Your task to perform on an android device: Open settings on Google Maps Image 0: 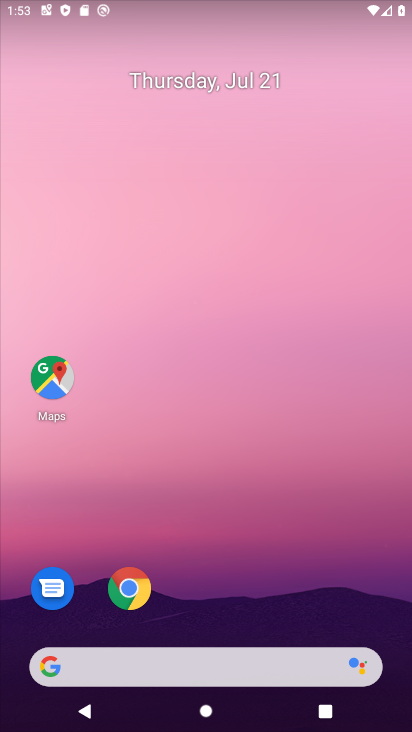
Step 0: drag from (215, 633) to (193, 120)
Your task to perform on an android device: Open settings on Google Maps Image 1: 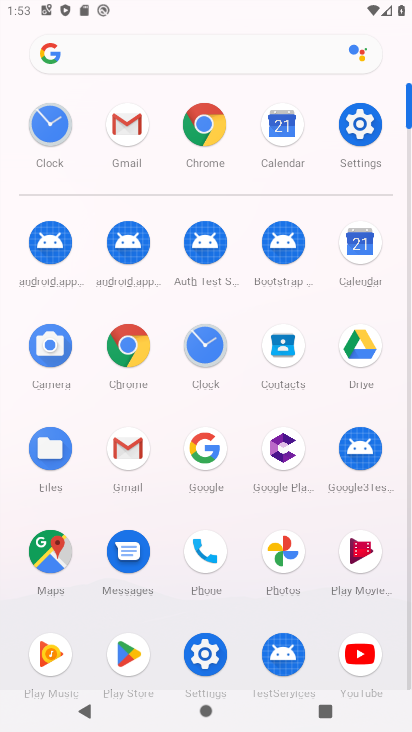
Step 1: click (48, 560)
Your task to perform on an android device: Open settings on Google Maps Image 2: 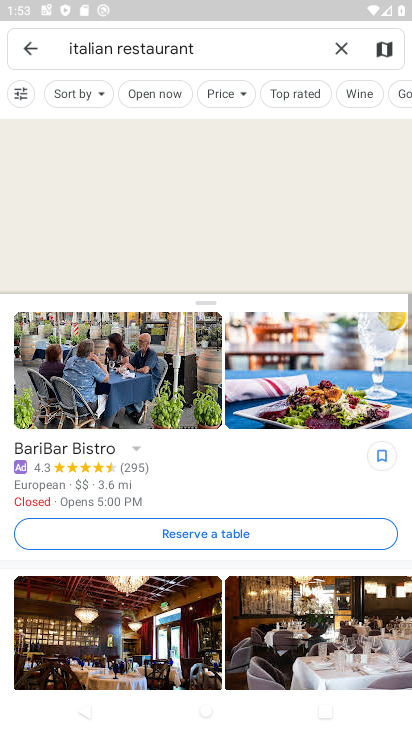
Step 2: click (11, 36)
Your task to perform on an android device: Open settings on Google Maps Image 3: 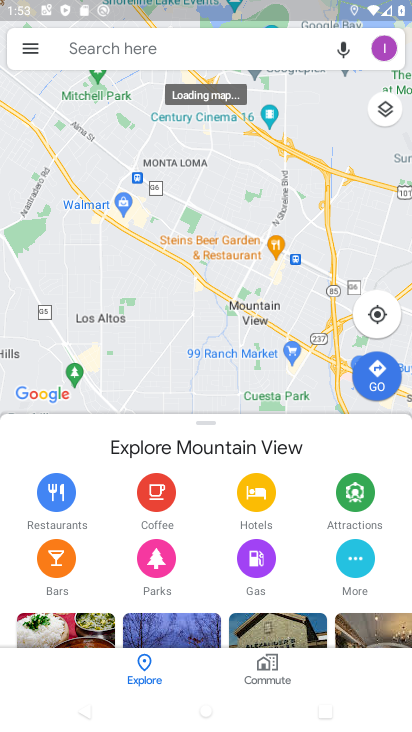
Step 3: click (28, 42)
Your task to perform on an android device: Open settings on Google Maps Image 4: 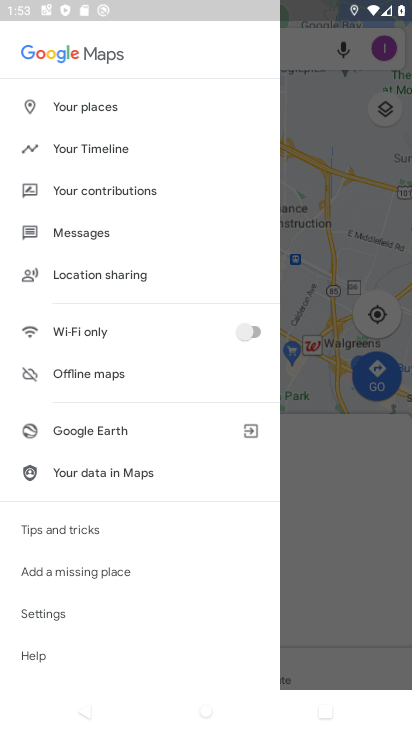
Step 4: click (57, 609)
Your task to perform on an android device: Open settings on Google Maps Image 5: 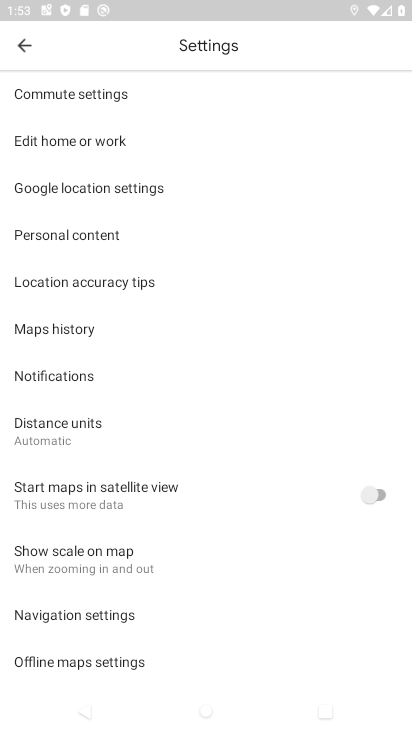
Step 5: task complete